Your task to perform on an android device: Search for flights from Seoul to Mexico city Image 0: 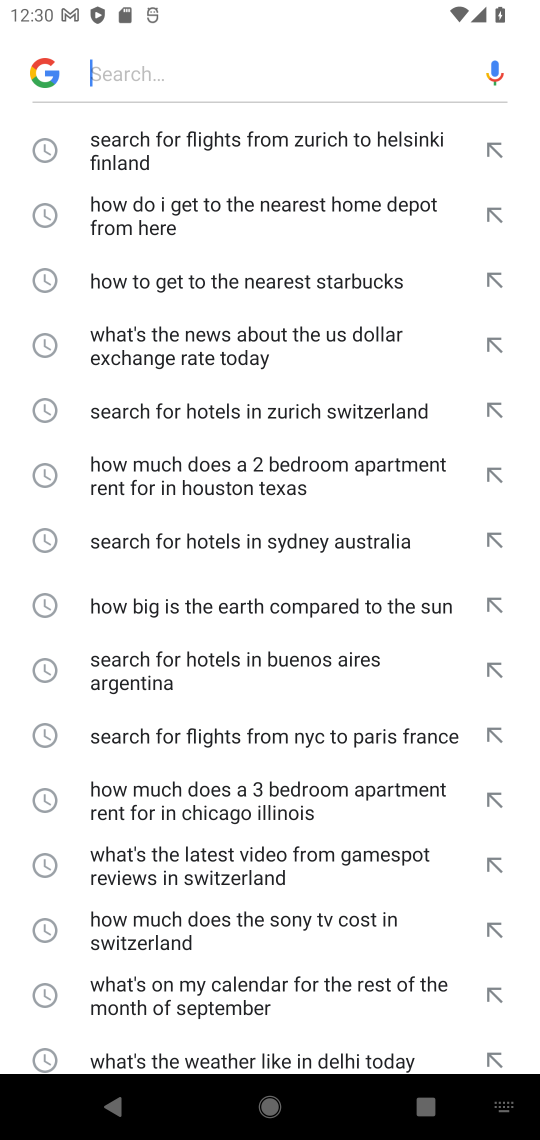
Step 0: press home button
Your task to perform on an android device: Search for flights from Seoul to Mexico city Image 1: 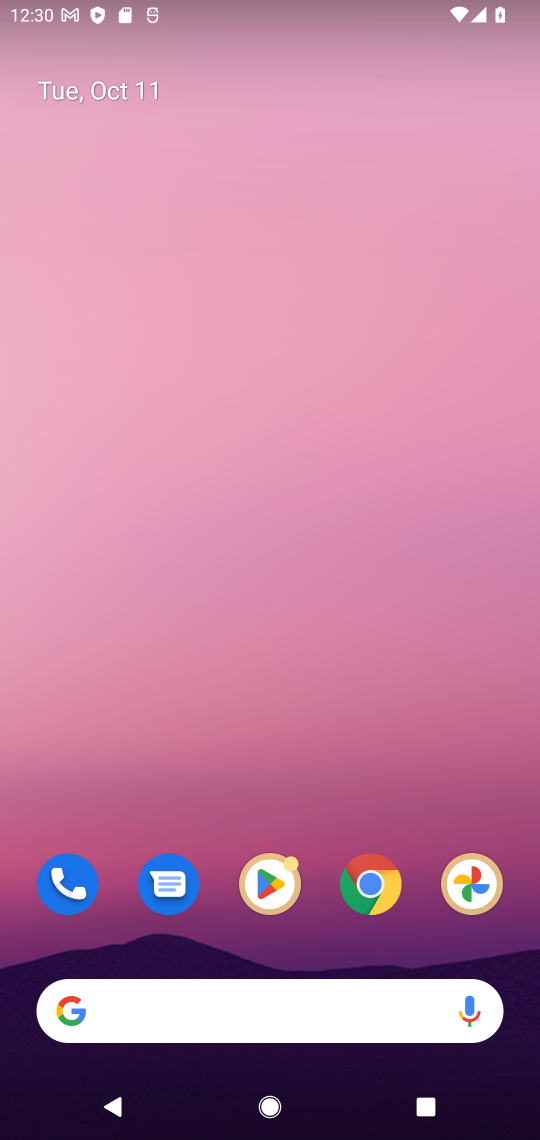
Step 1: drag from (210, 994) to (226, 350)
Your task to perform on an android device: Search for flights from Seoul to Mexico city Image 2: 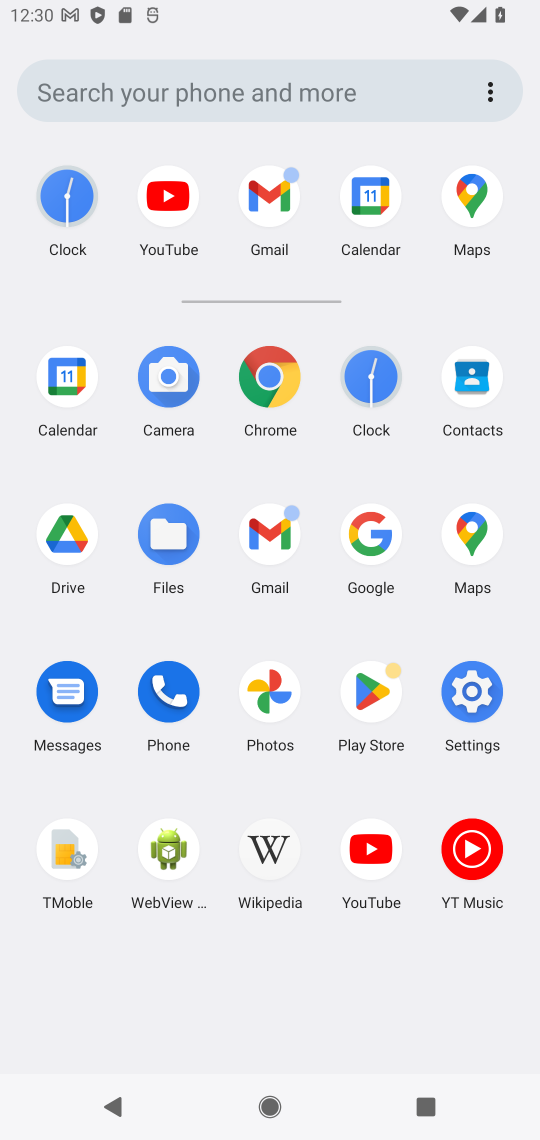
Step 2: click (377, 534)
Your task to perform on an android device: Search for flights from Seoul to Mexico city Image 3: 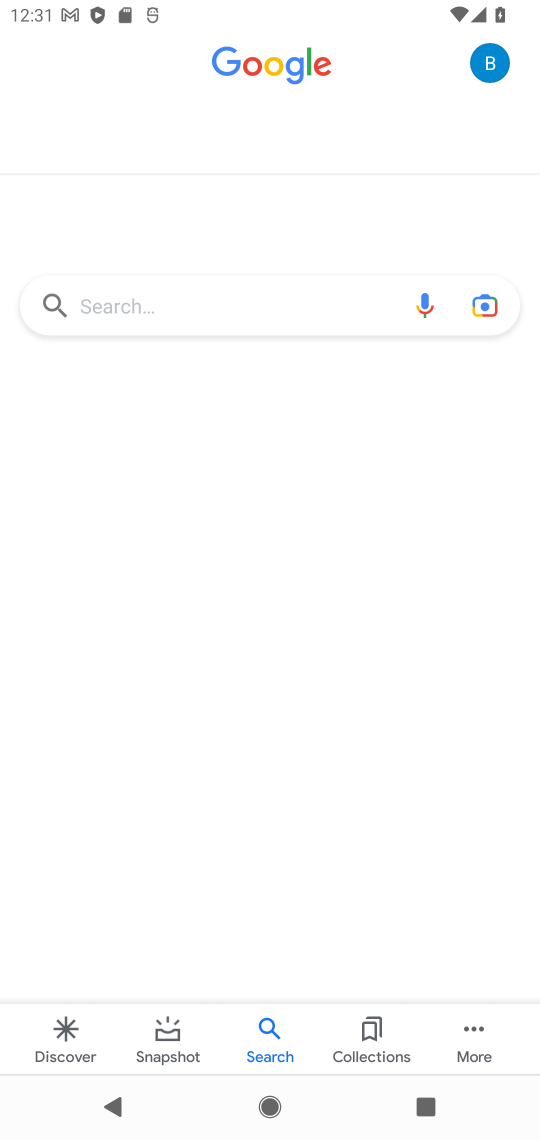
Step 3: click (199, 307)
Your task to perform on an android device: Search for flights from Seoul to Mexico city Image 4: 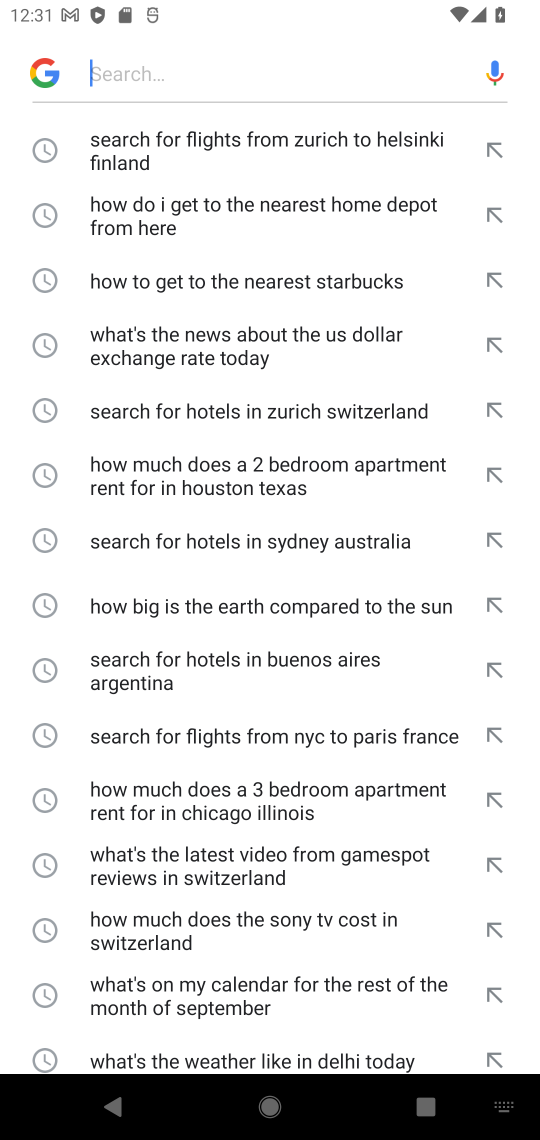
Step 4: type "Search for flights from Seoul to Mexico city"
Your task to perform on an android device: Search for flights from Seoul to Mexico city Image 5: 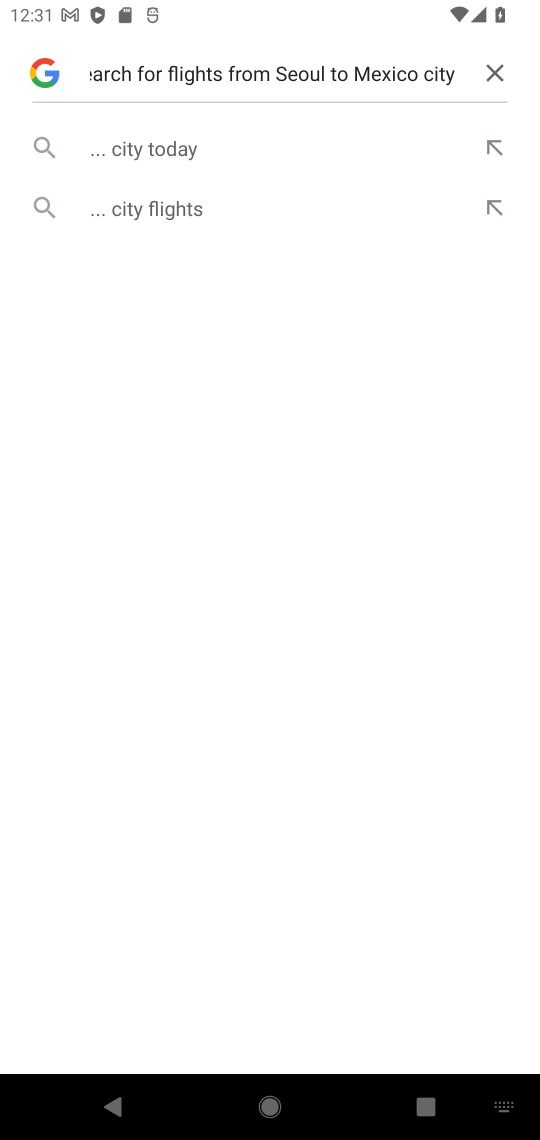
Step 5: click (180, 145)
Your task to perform on an android device: Search for flights from Seoul to Mexico city Image 6: 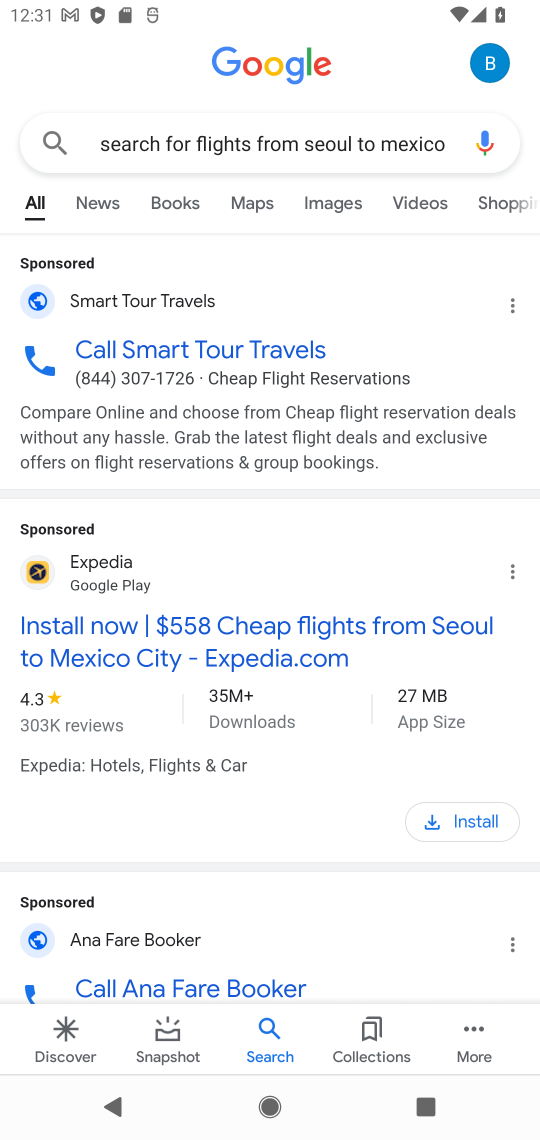
Step 6: task complete